Your task to perform on an android device: Search for sushi restaurants on Maps Image 0: 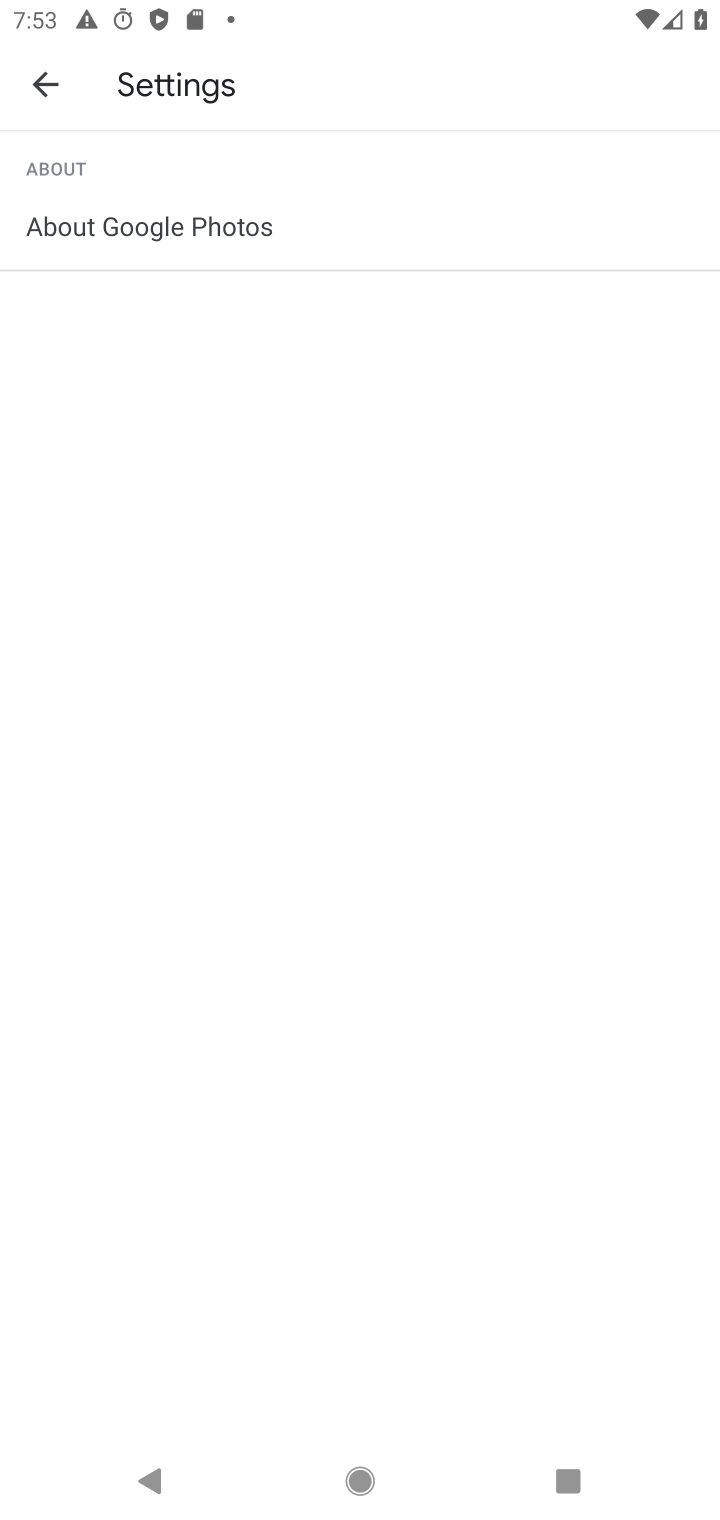
Step 0: press home button
Your task to perform on an android device: Search for sushi restaurants on Maps Image 1: 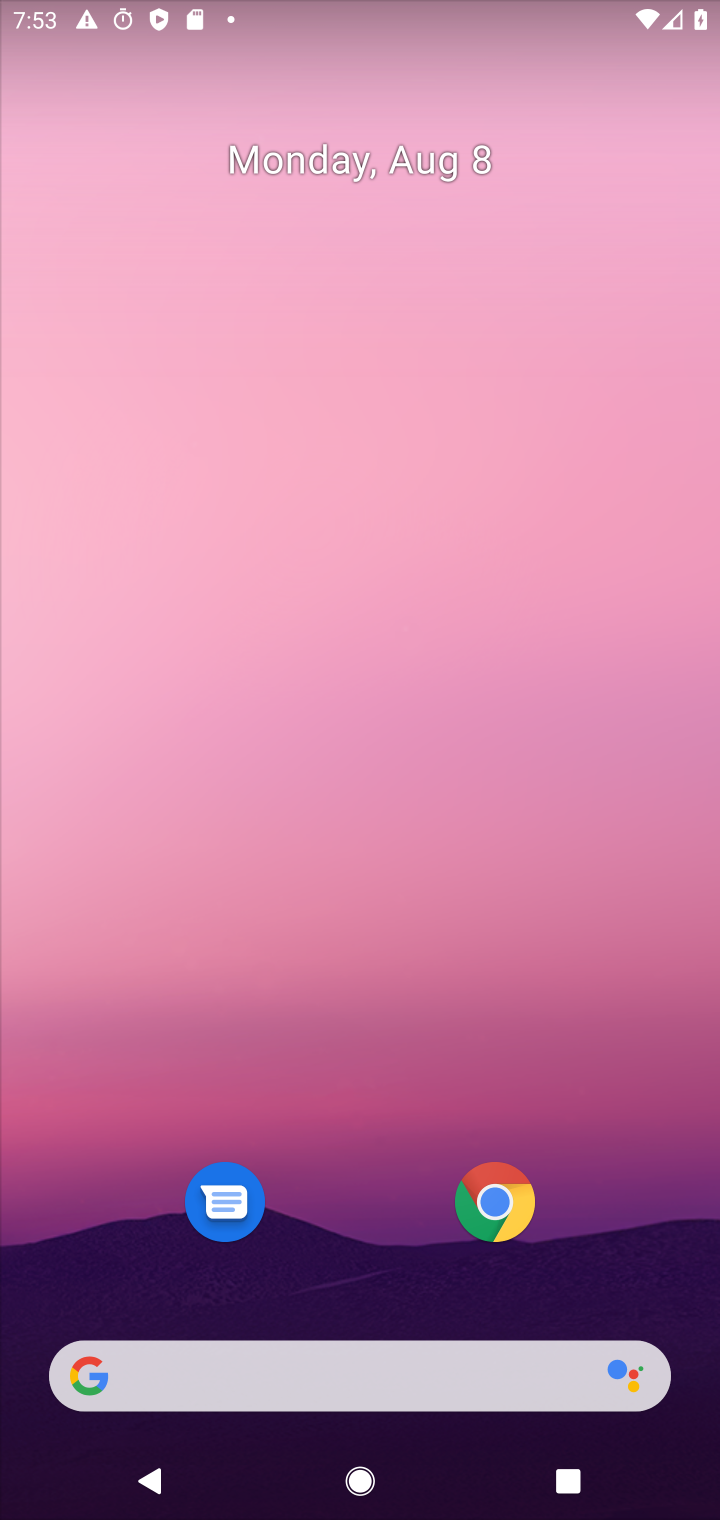
Step 1: drag from (341, 992) to (227, 0)
Your task to perform on an android device: Search for sushi restaurants on Maps Image 2: 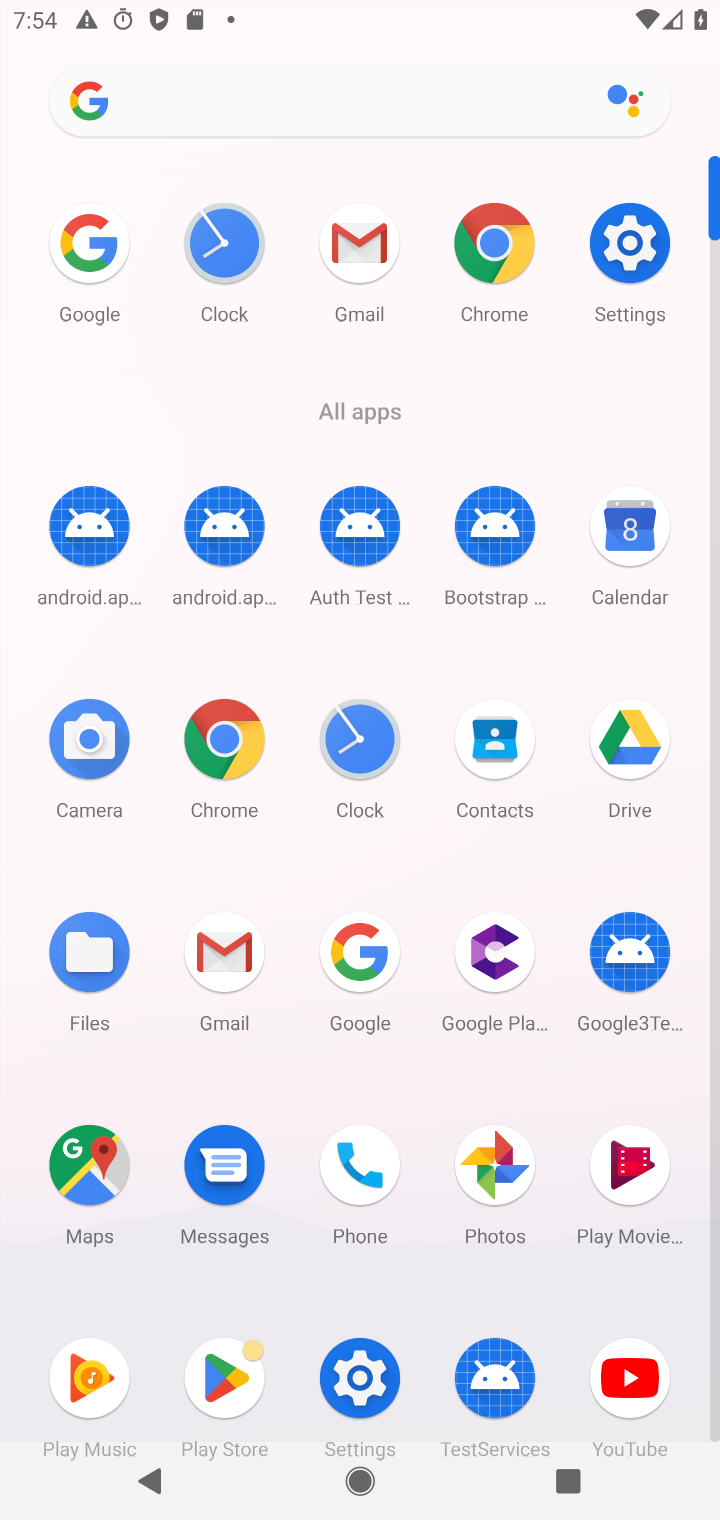
Step 2: drag from (352, 1165) to (363, 374)
Your task to perform on an android device: Search for sushi restaurants on Maps Image 3: 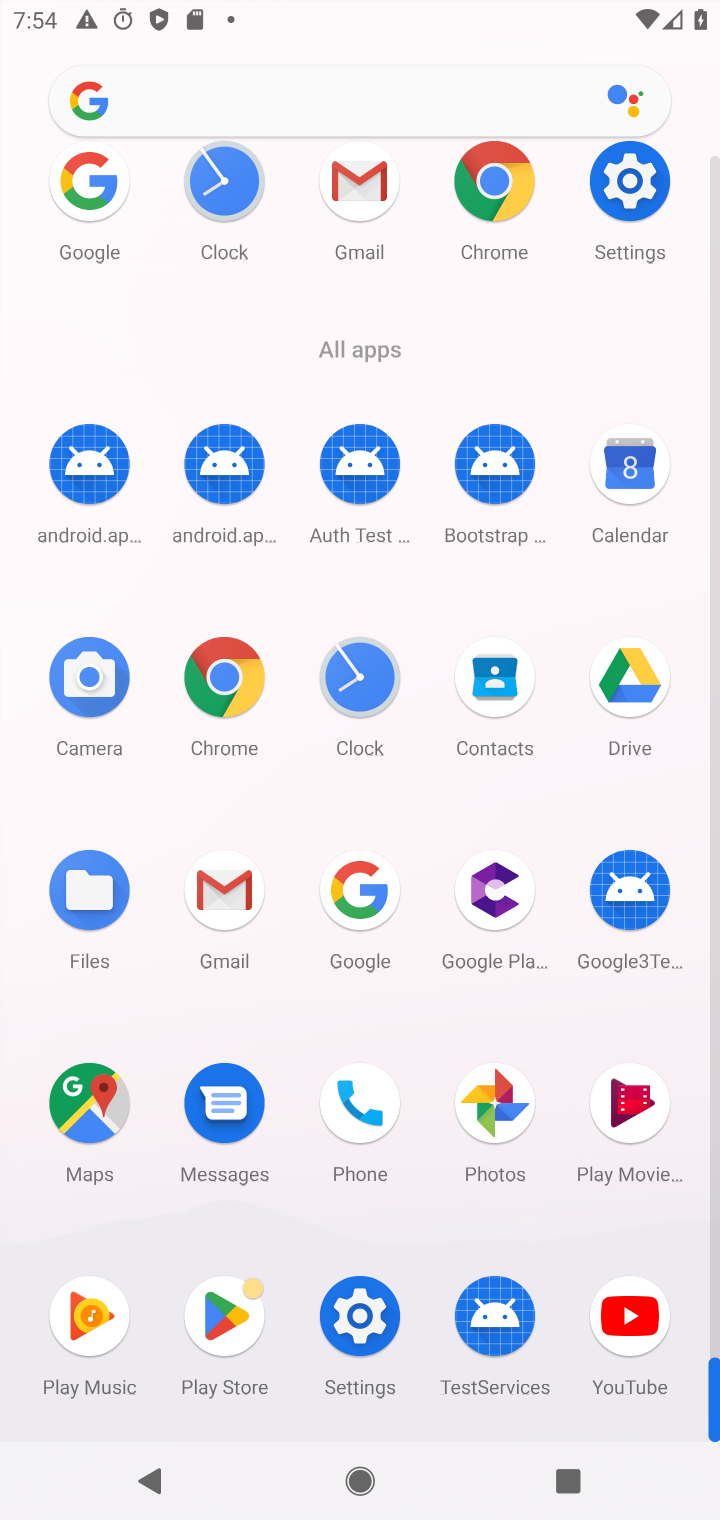
Step 3: click (85, 1135)
Your task to perform on an android device: Search for sushi restaurants on Maps Image 4: 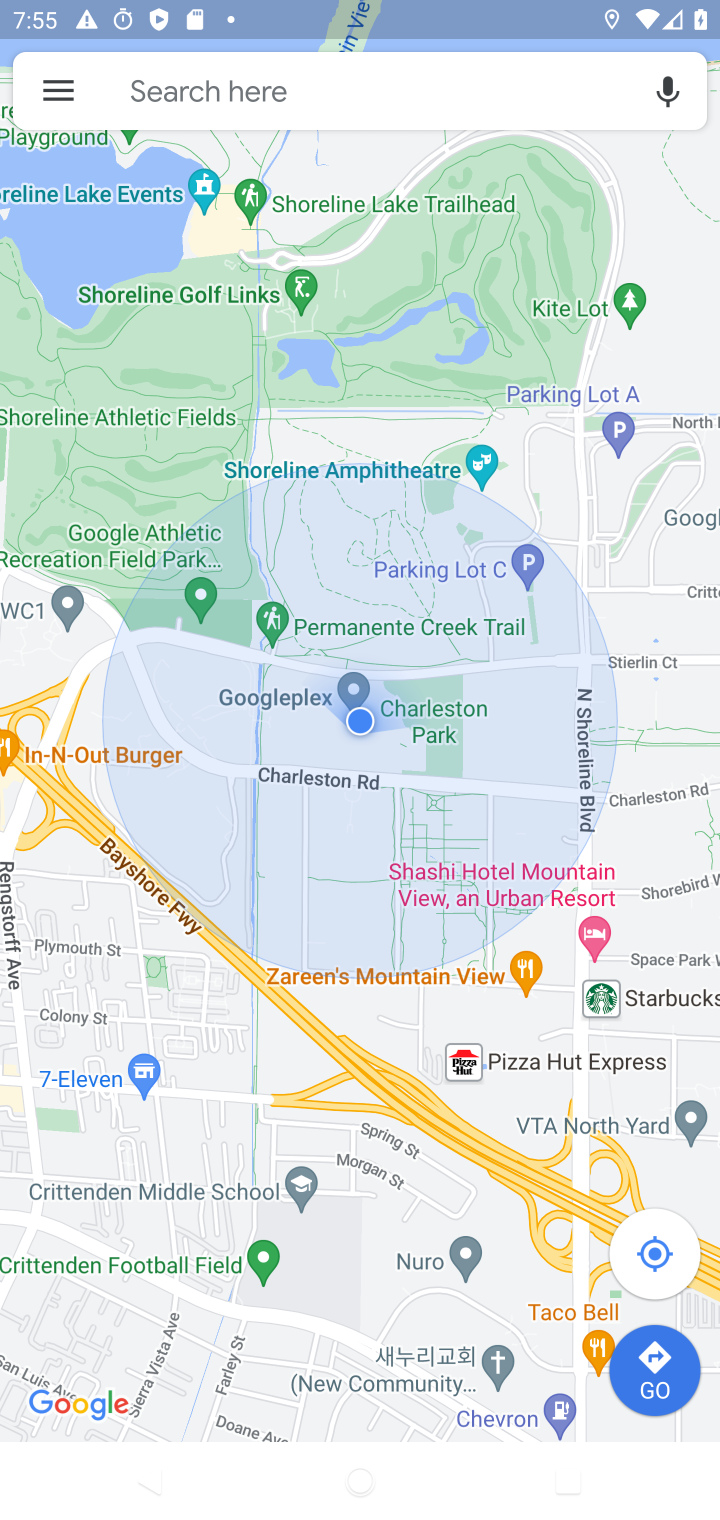
Step 4: click (368, 81)
Your task to perform on an android device: Search for sushi restaurants on Maps Image 5: 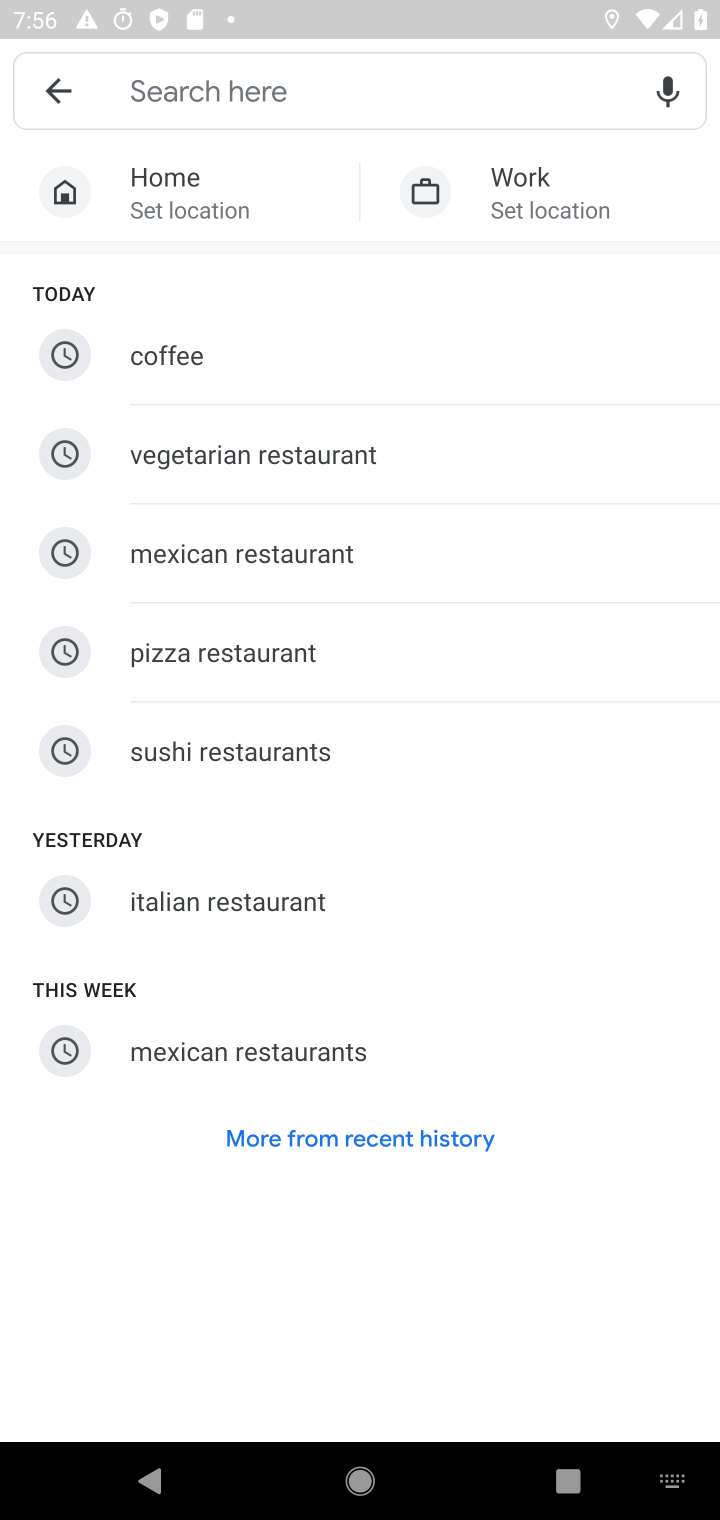
Step 5: click (303, 752)
Your task to perform on an android device: Search for sushi restaurants on Maps Image 6: 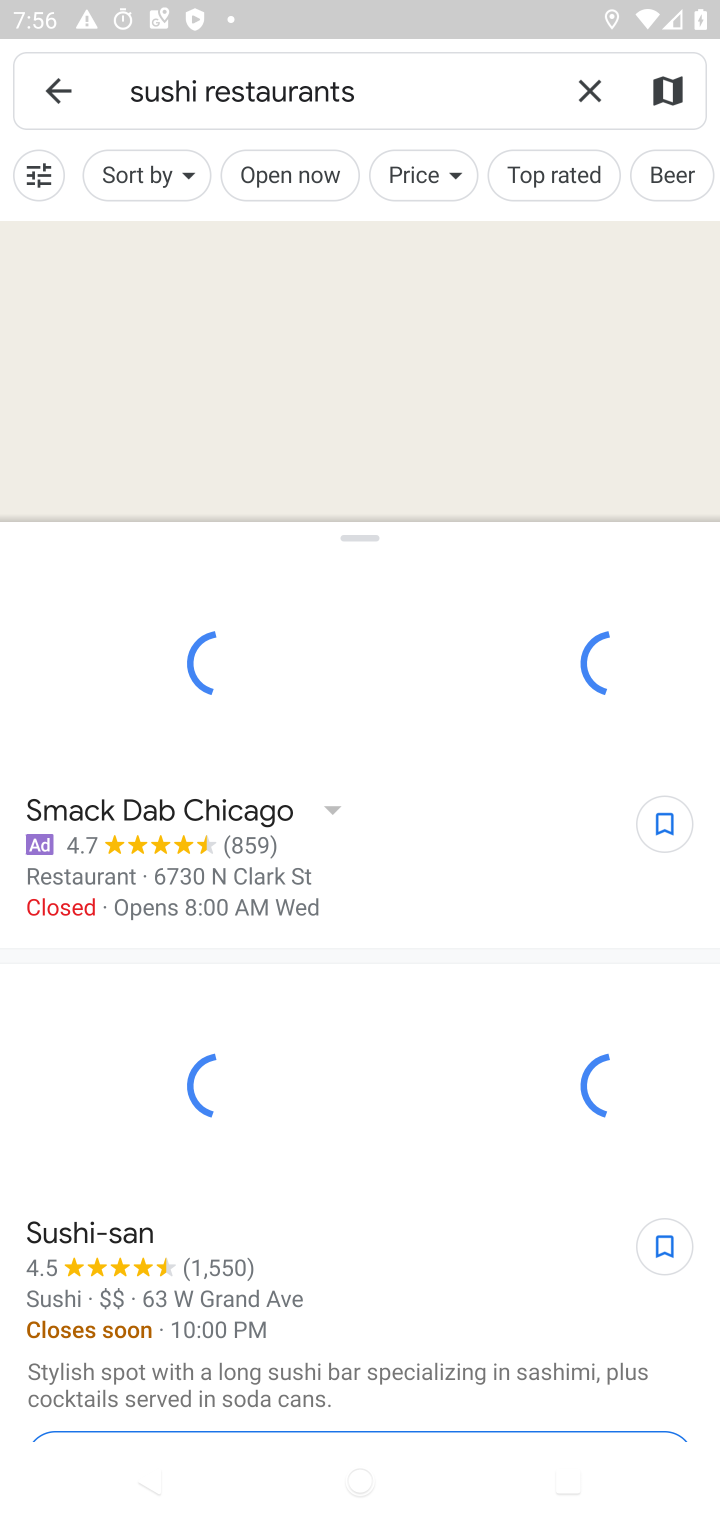
Step 6: task complete